Your task to perform on an android device: Check the weather Image 0: 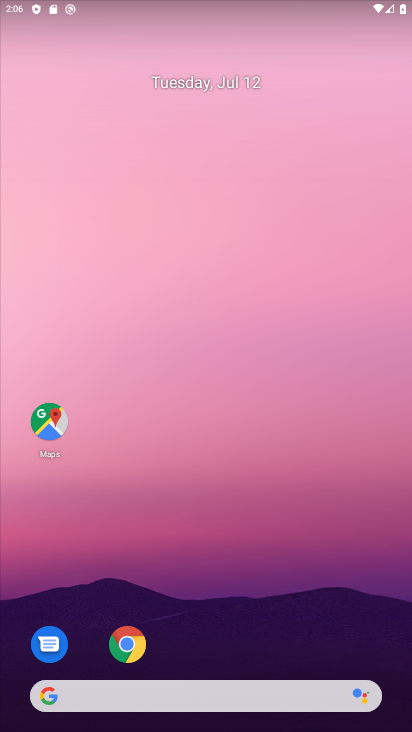
Step 0: click (224, 694)
Your task to perform on an android device: Check the weather Image 1: 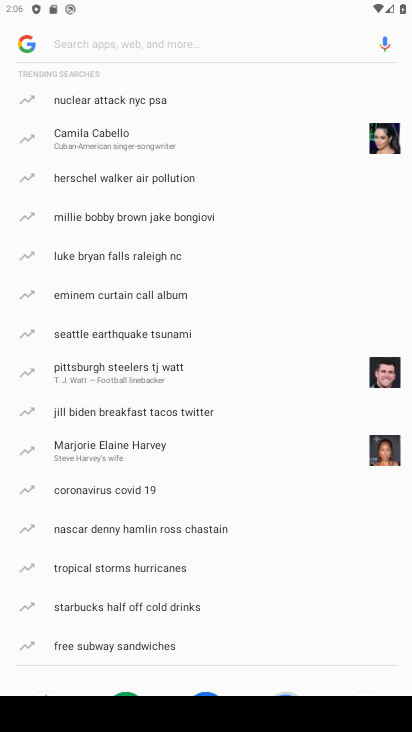
Step 1: type "weather"
Your task to perform on an android device: Check the weather Image 2: 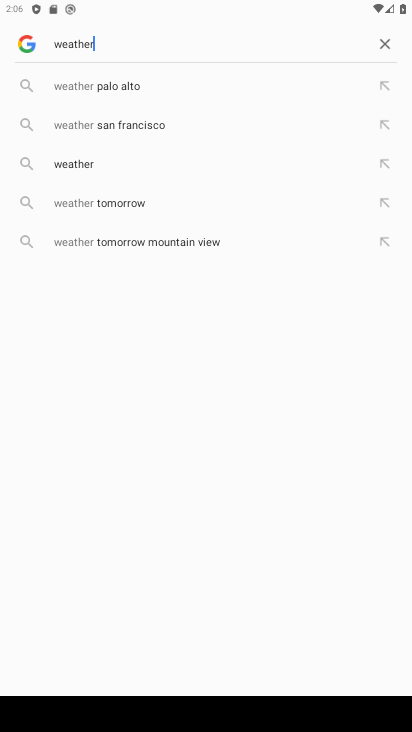
Step 2: click (114, 172)
Your task to perform on an android device: Check the weather Image 3: 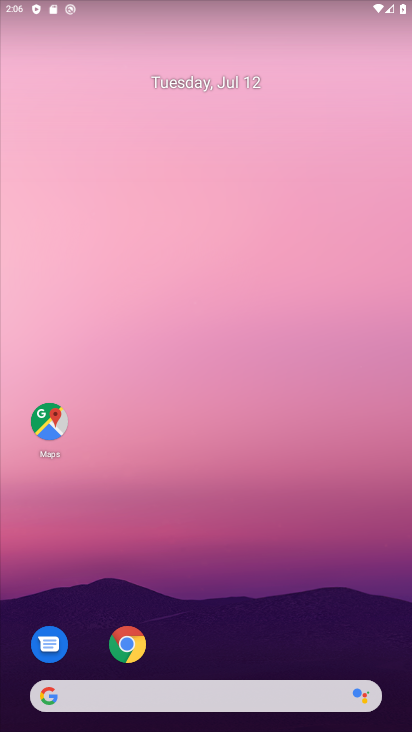
Step 3: task complete